Your task to perform on an android device: Go to internet settings Image 0: 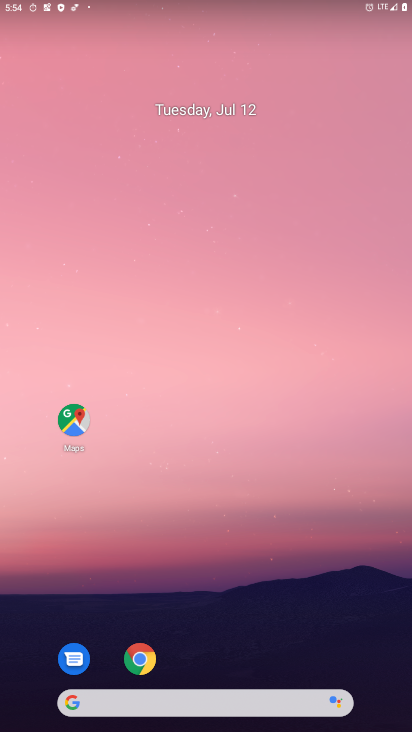
Step 0: drag from (246, 135) to (255, 23)
Your task to perform on an android device: Go to internet settings Image 1: 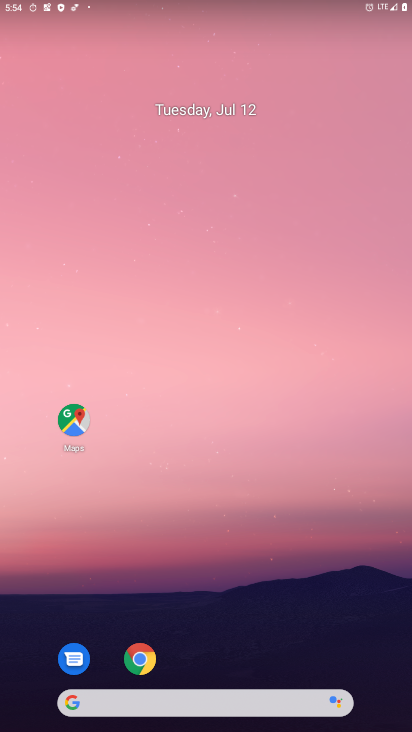
Step 1: drag from (196, 577) to (197, 56)
Your task to perform on an android device: Go to internet settings Image 2: 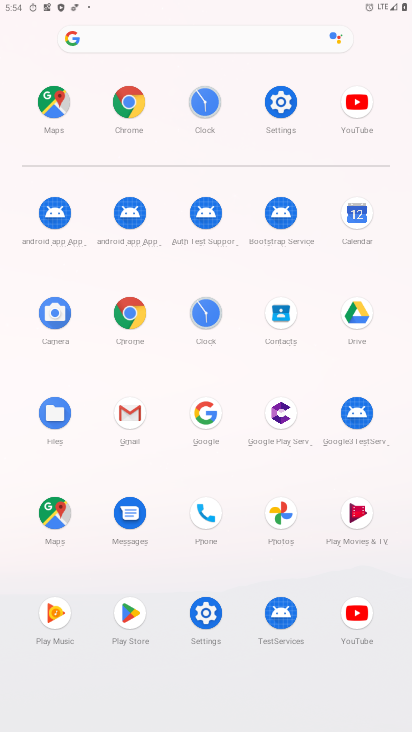
Step 2: click (280, 124)
Your task to perform on an android device: Go to internet settings Image 3: 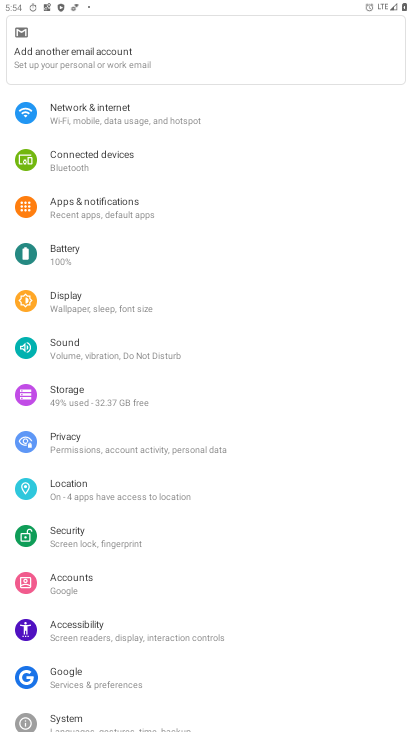
Step 3: click (164, 60)
Your task to perform on an android device: Go to internet settings Image 4: 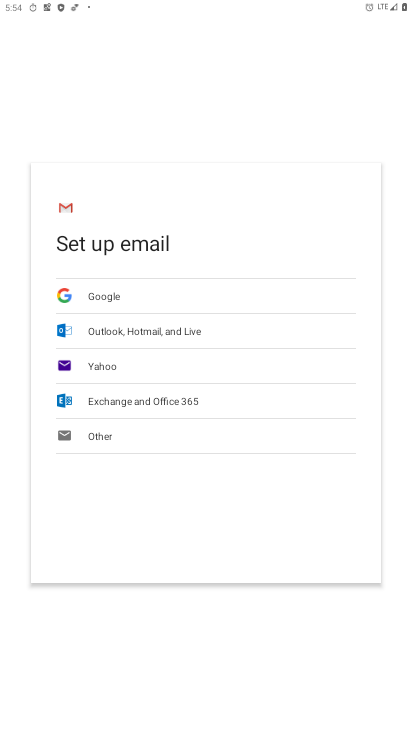
Step 4: press back button
Your task to perform on an android device: Go to internet settings Image 5: 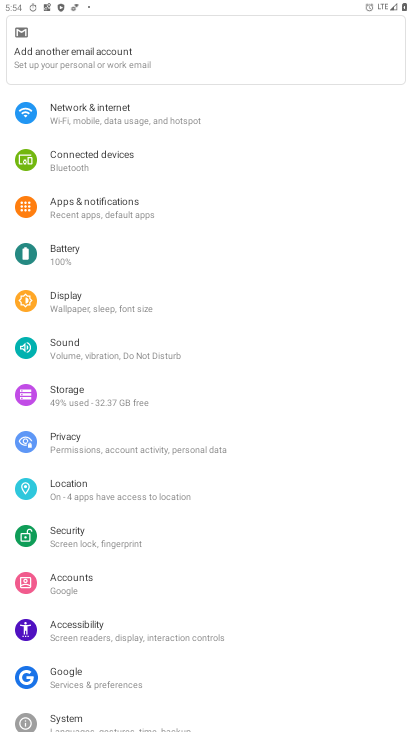
Step 5: click (102, 109)
Your task to perform on an android device: Go to internet settings Image 6: 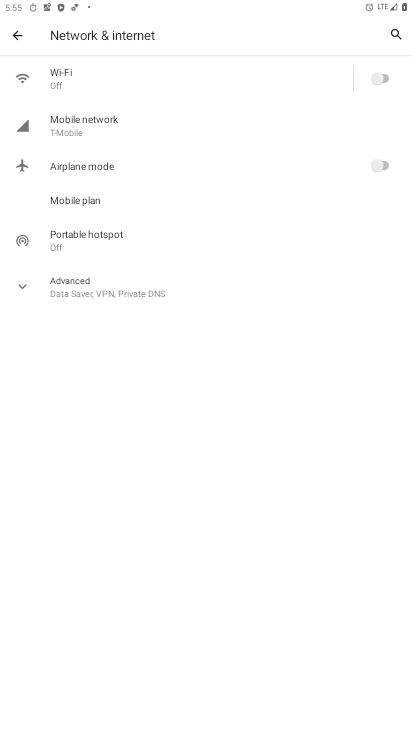
Step 6: task complete